Your task to perform on an android device: Open calendar and show me the fourth week of next month Image 0: 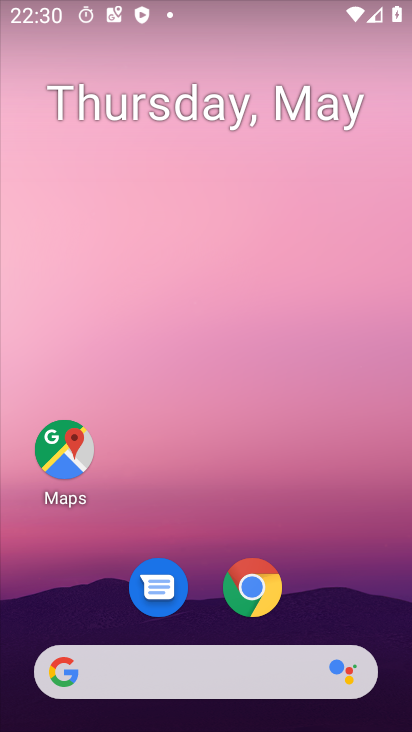
Step 0: drag from (361, 625) to (337, 0)
Your task to perform on an android device: Open calendar and show me the fourth week of next month Image 1: 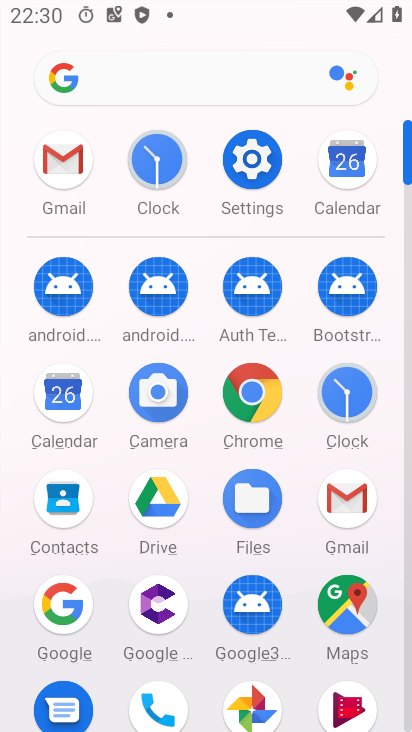
Step 1: click (341, 168)
Your task to perform on an android device: Open calendar and show me the fourth week of next month Image 2: 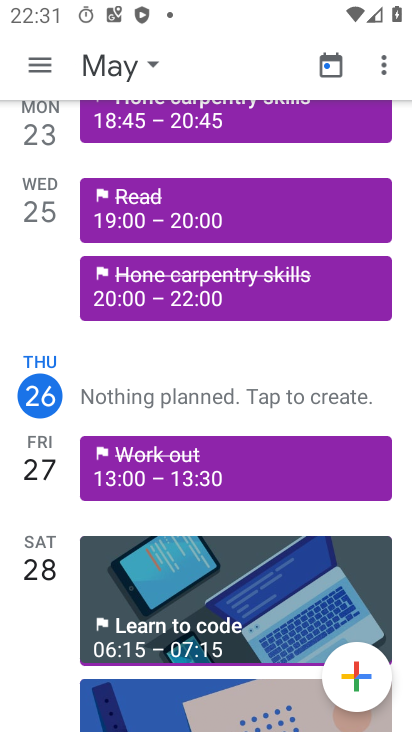
Step 2: click (146, 63)
Your task to perform on an android device: Open calendar and show me the fourth week of next month Image 3: 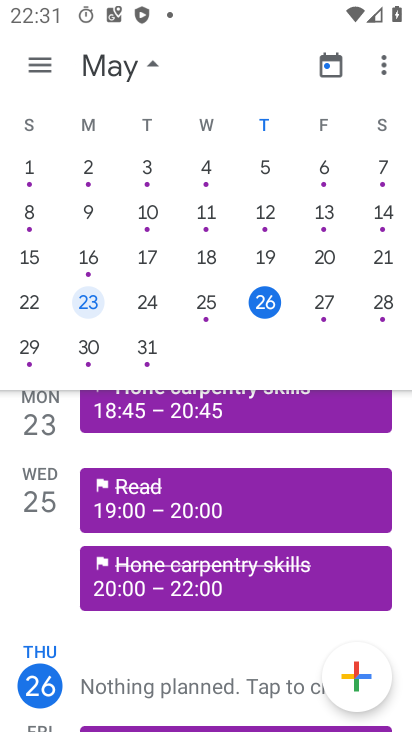
Step 3: click (42, 62)
Your task to perform on an android device: Open calendar and show me the fourth week of next month Image 4: 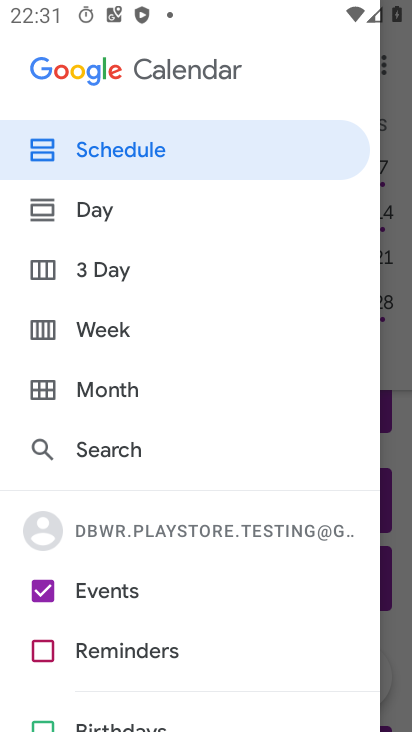
Step 4: click (98, 326)
Your task to perform on an android device: Open calendar and show me the fourth week of next month Image 5: 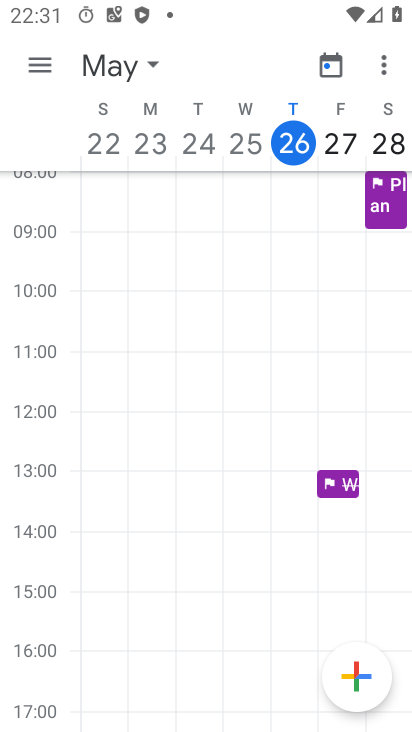
Step 5: click (151, 63)
Your task to perform on an android device: Open calendar and show me the fourth week of next month Image 6: 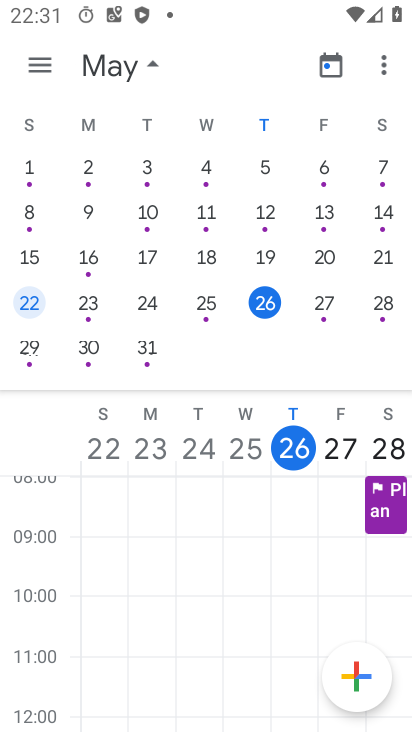
Step 6: task complete